Your task to perform on an android device: add a contact Image 0: 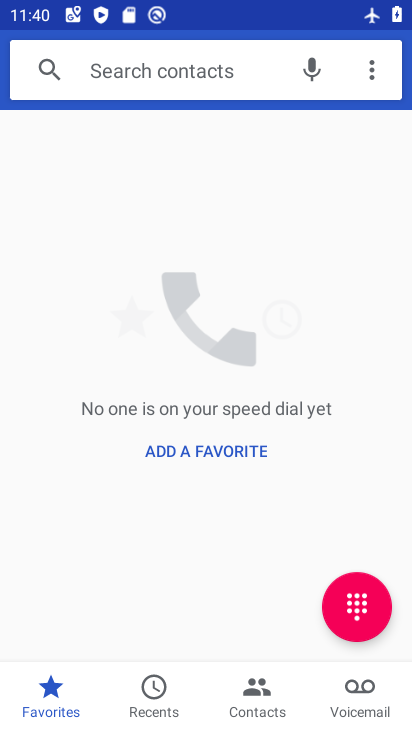
Step 0: press home button
Your task to perform on an android device: add a contact Image 1: 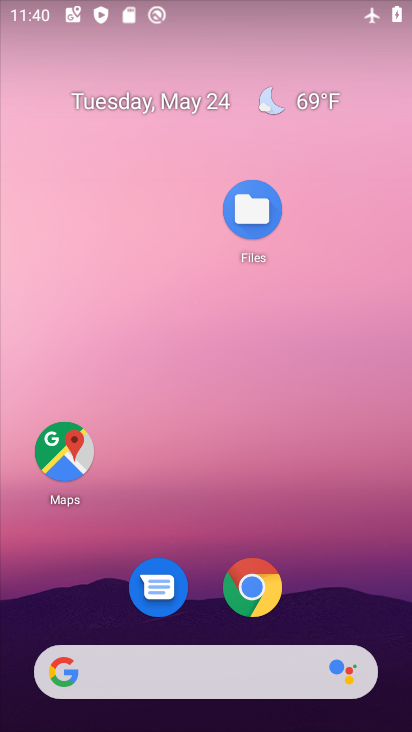
Step 1: drag from (339, 595) to (44, 53)
Your task to perform on an android device: add a contact Image 2: 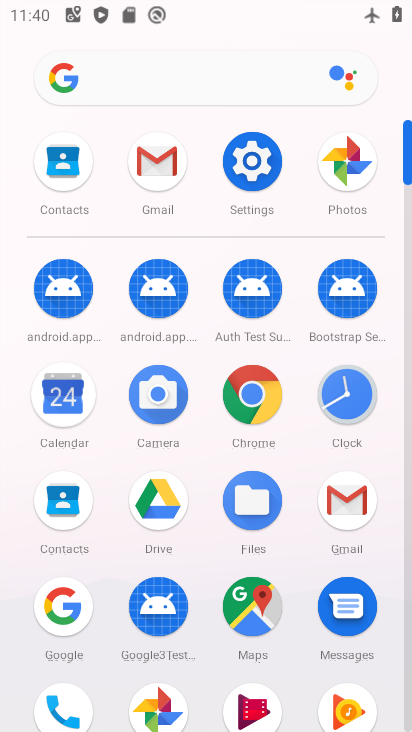
Step 2: click (67, 165)
Your task to perform on an android device: add a contact Image 3: 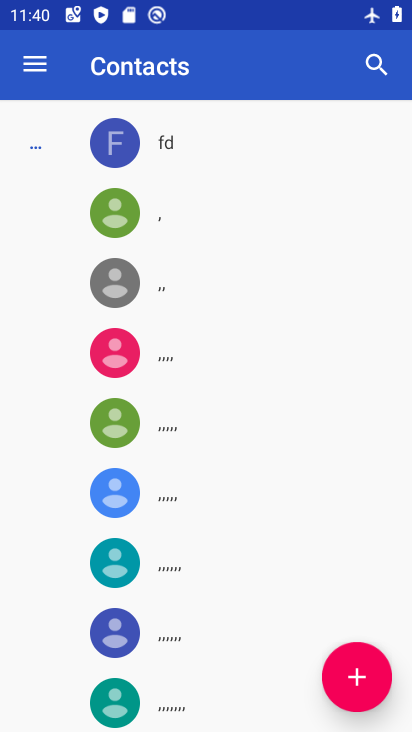
Step 3: click (358, 674)
Your task to perform on an android device: add a contact Image 4: 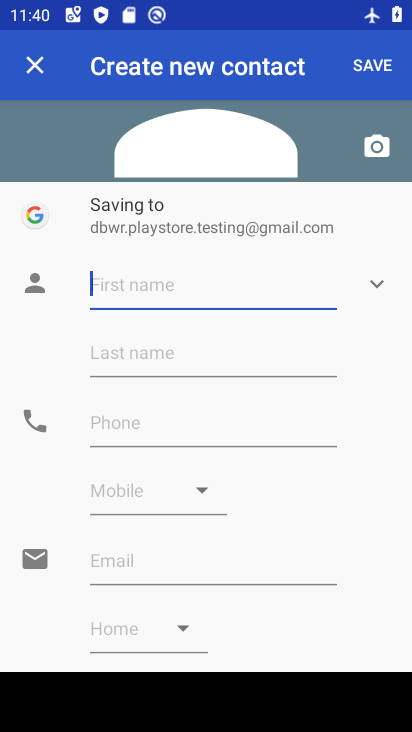
Step 4: click (129, 295)
Your task to perform on an android device: add a contact Image 5: 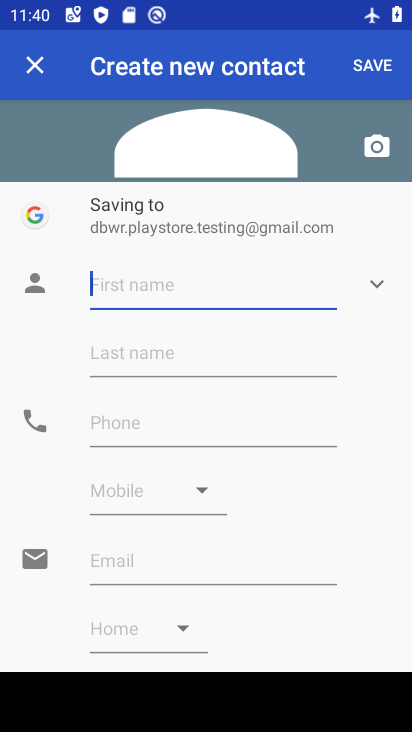
Step 5: type "kie"
Your task to perform on an android device: add a contact Image 6: 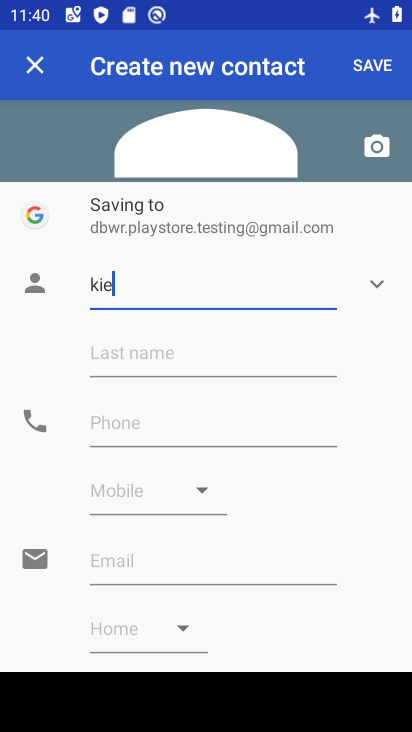
Step 6: click (160, 442)
Your task to perform on an android device: add a contact Image 7: 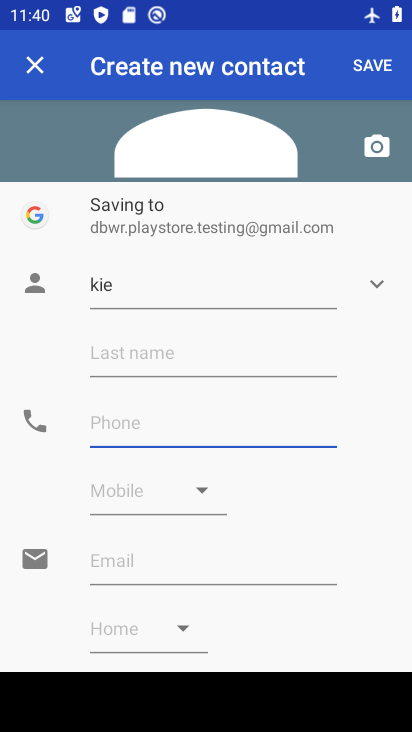
Step 7: type "66469976"
Your task to perform on an android device: add a contact Image 8: 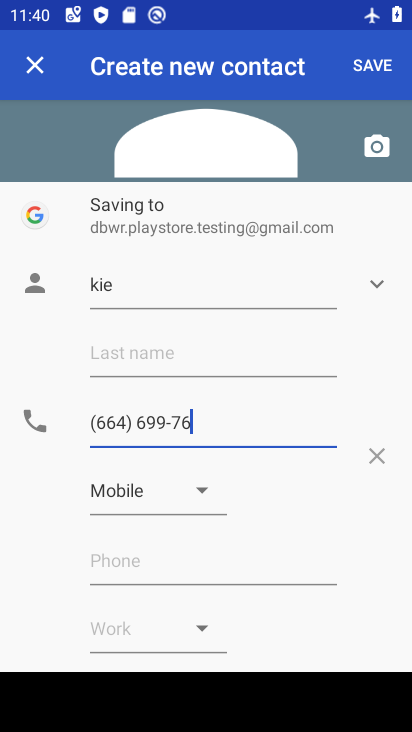
Step 8: type "43"
Your task to perform on an android device: add a contact Image 9: 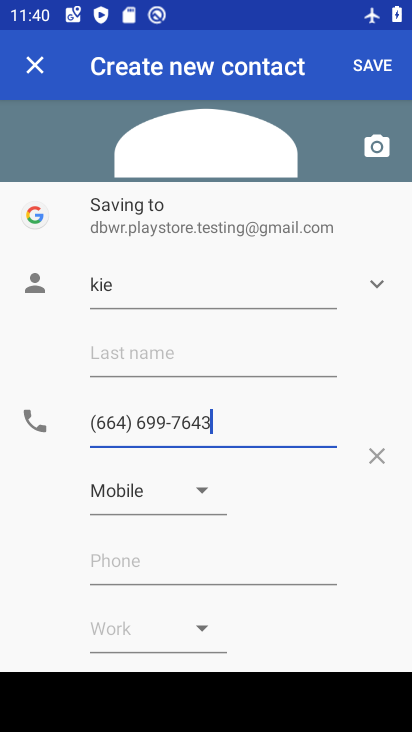
Step 9: click (378, 64)
Your task to perform on an android device: add a contact Image 10: 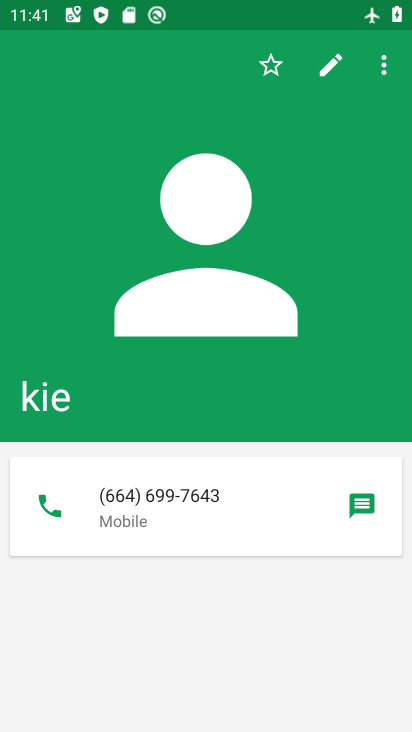
Step 10: task complete